Your task to perform on an android device: Open calendar and show me the fourth week of next month Image 0: 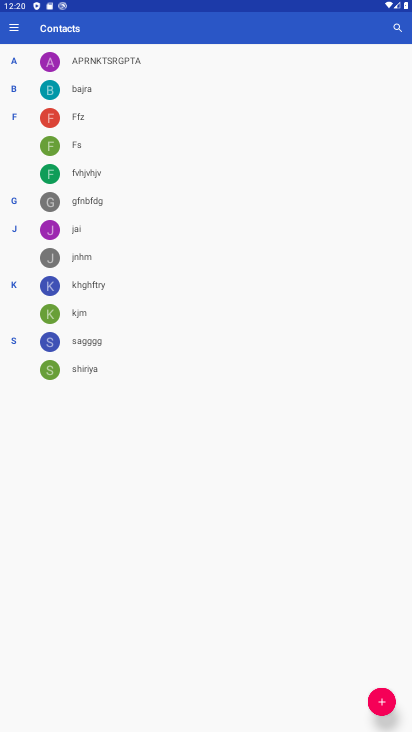
Step 0: press home button
Your task to perform on an android device: Open calendar and show me the fourth week of next month Image 1: 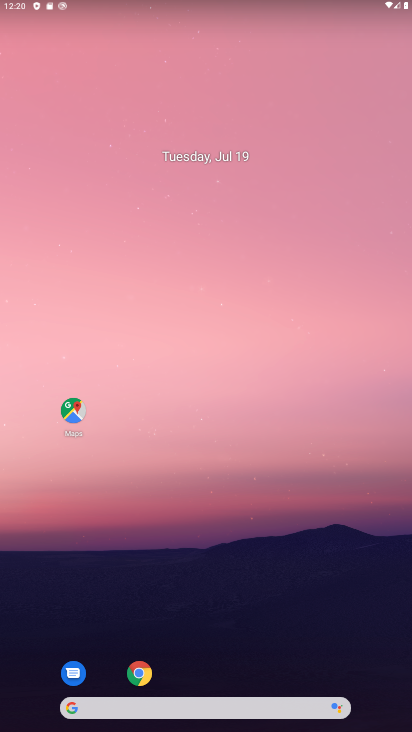
Step 1: drag from (365, 671) to (182, 106)
Your task to perform on an android device: Open calendar and show me the fourth week of next month Image 2: 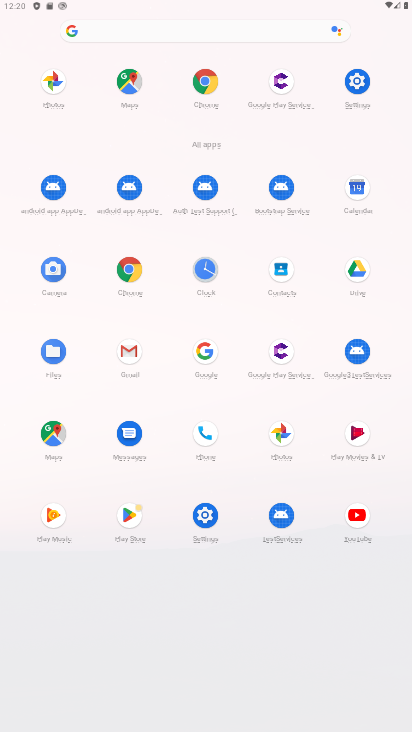
Step 2: click (351, 177)
Your task to perform on an android device: Open calendar and show me the fourth week of next month Image 3: 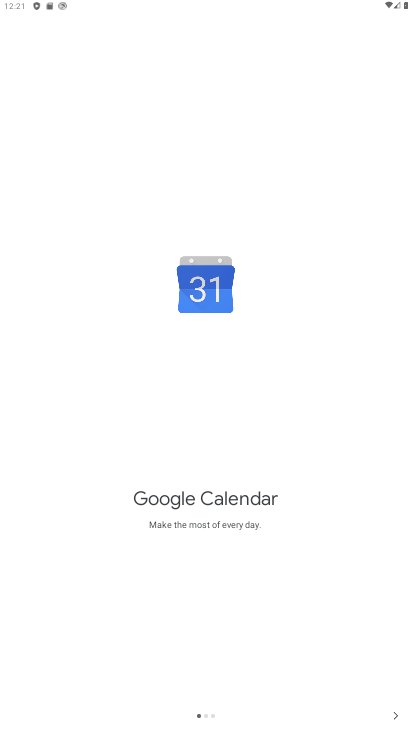
Step 3: click (399, 718)
Your task to perform on an android device: Open calendar and show me the fourth week of next month Image 4: 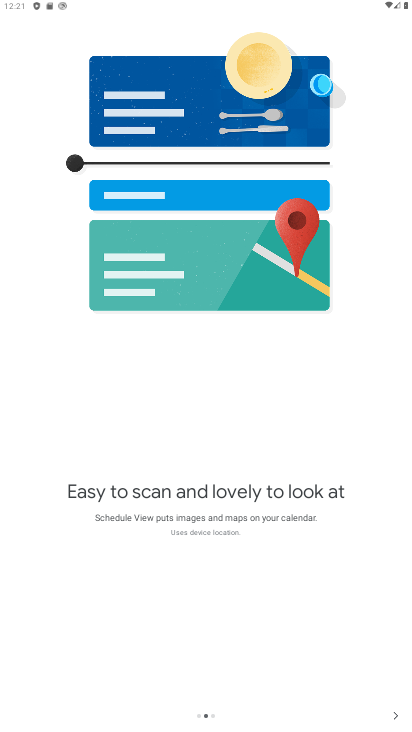
Step 4: click (399, 718)
Your task to perform on an android device: Open calendar and show me the fourth week of next month Image 5: 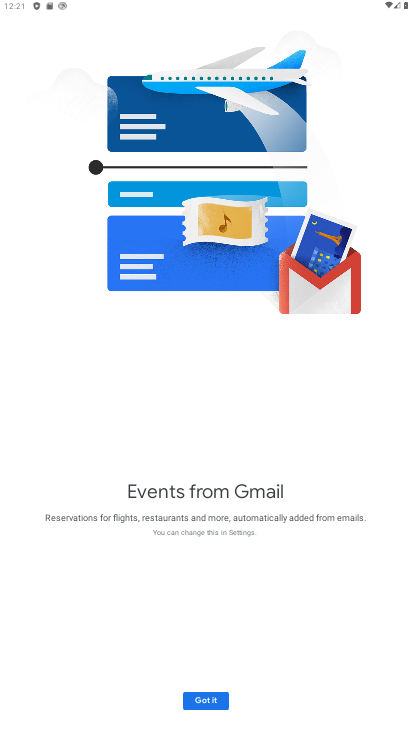
Step 5: click (212, 703)
Your task to perform on an android device: Open calendar and show me the fourth week of next month Image 6: 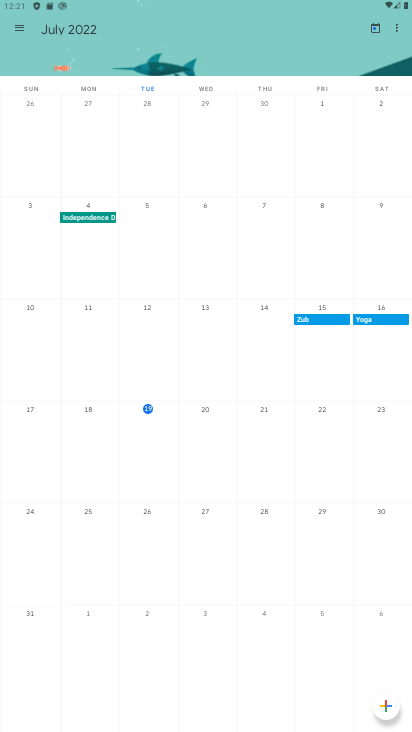
Step 6: click (13, 29)
Your task to perform on an android device: Open calendar and show me the fourth week of next month Image 7: 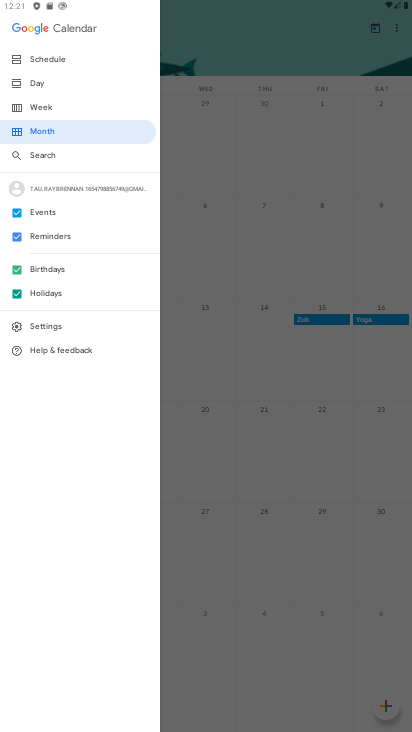
Step 7: click (46, 108)
Your task to perform on an android device: Open calendar and show me the fourth week of next month Image 8: 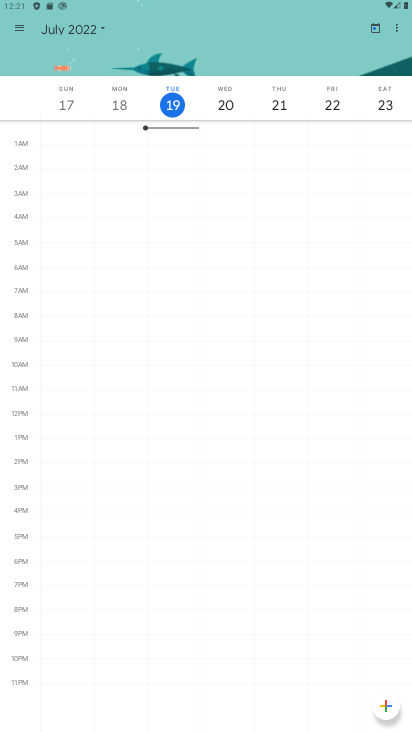
Step 8: click (90, 31)
Your task to perform on an android device: Open calendar and show me the fourth week of next month Image 9: 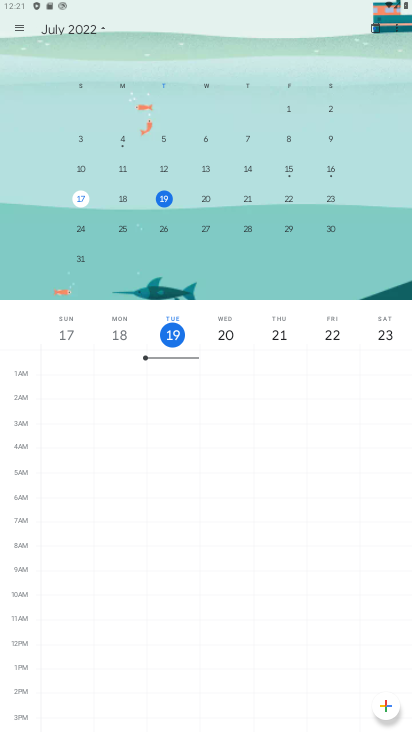
Step 9: drag from (364, 206) to (51, 201)
Your task to perform on an android device: Open calendar and show me the fourth week of next month Image 10: 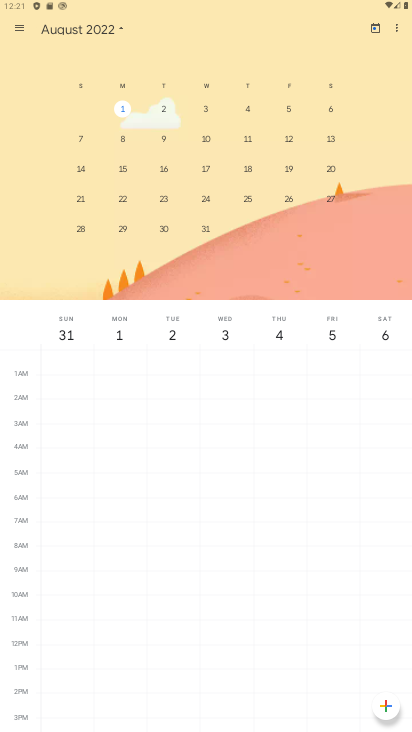
Step 10: click (243, 197)
Your task to perform on an android device: Open calendar and show me the fourth week of next month Image 11: 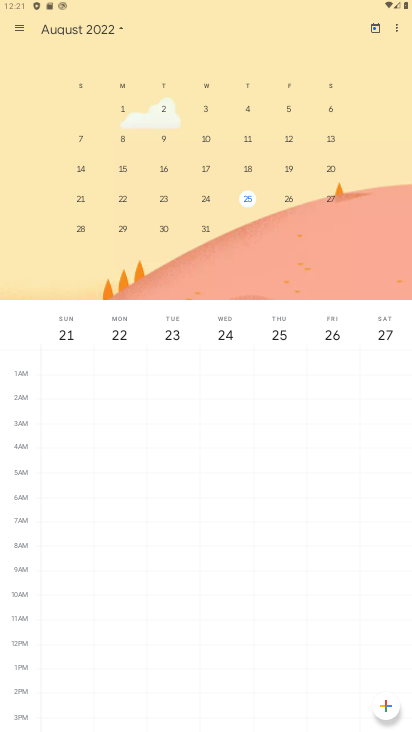
Step 11: task complete